Your task to perform on an android device: toggle notification dots Image 0: 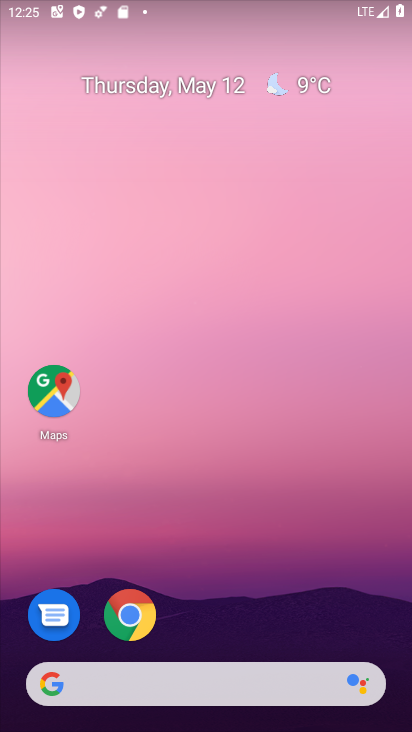
Step 0: drag from (248, 573) to (219, 58)
Your task to perform on an android device: toggle notification dots Image 1: 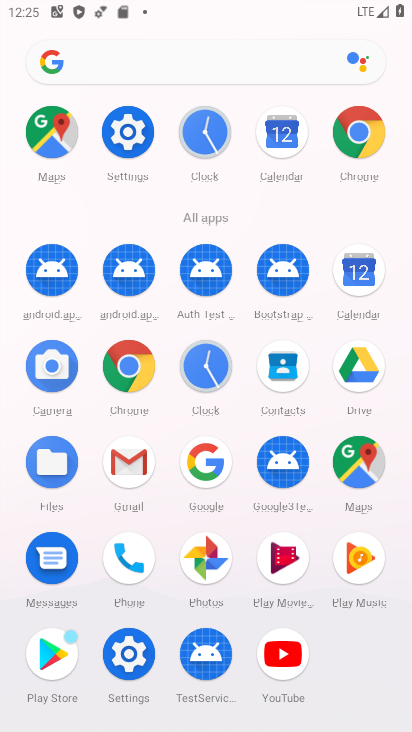
Step 1: click (125, 134)
Your task to perform on an android device: toggle notification dots Image 2: 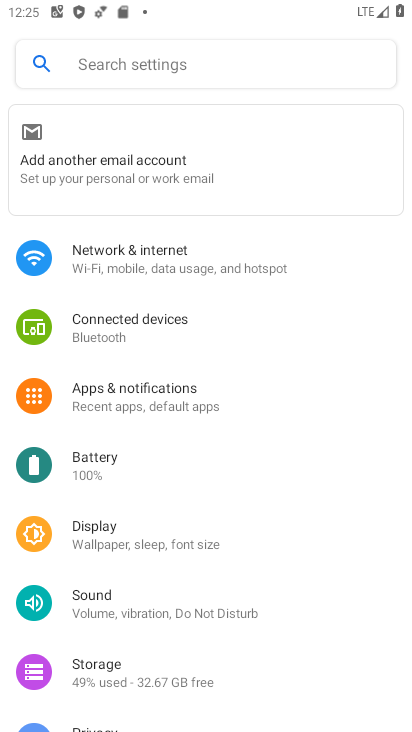
Step 2: click (146, 400)
Your task to perform on an android device: toggle notification dots Image 3: 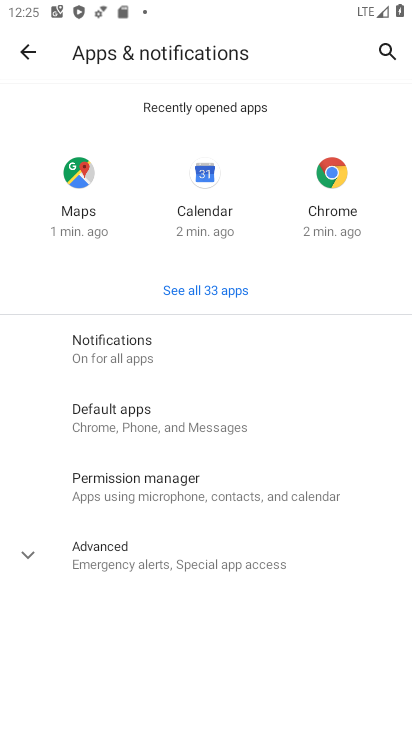
Step 3: click (96, 346)
Your task to perform on an android device: toggle notification dots Image 4: 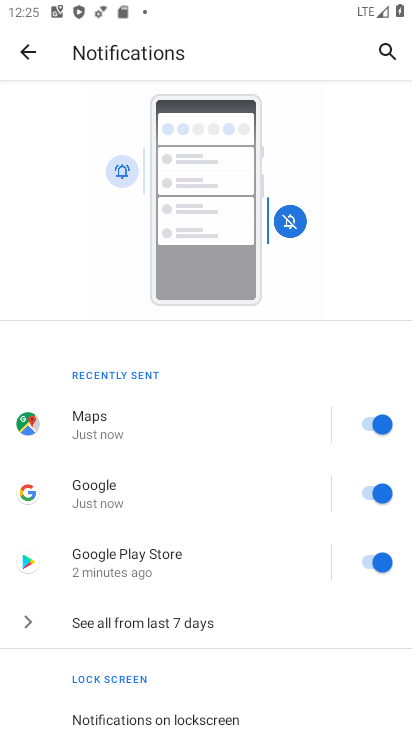
Step 4: drag from (210, 630) to (258, 445)
Your task to perform on an android device: toggle notification dots Image 5: 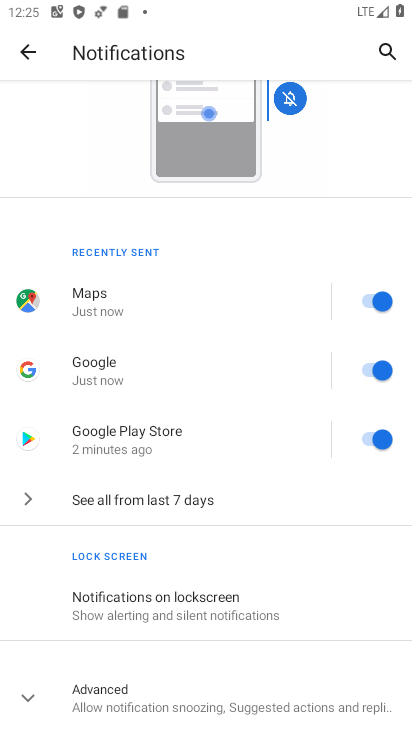
Step 5: click (200, 704)
Your task to perform on an android device: toggle notification dots Image 6: 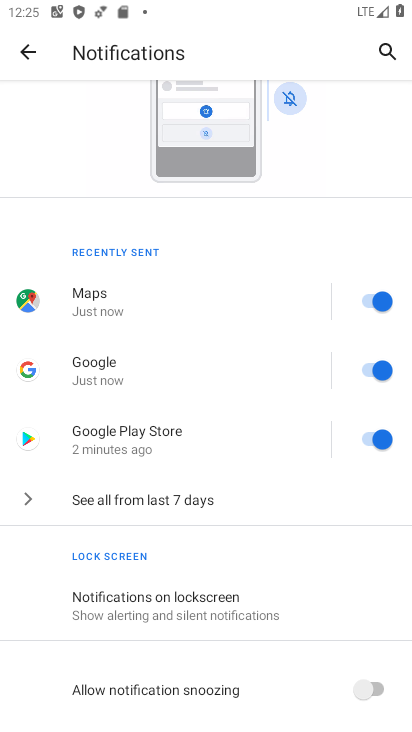
Step 6: drag from (186, 650) to (311, 392)
Your task to perform on an android device: toggle notification dots Image 7: 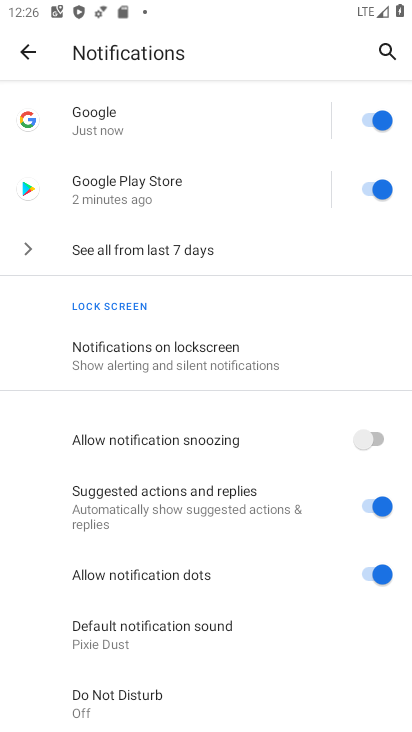
Step 7: click (390, 570)
Your task to perform on an android device: toggle notification dots Image 8: 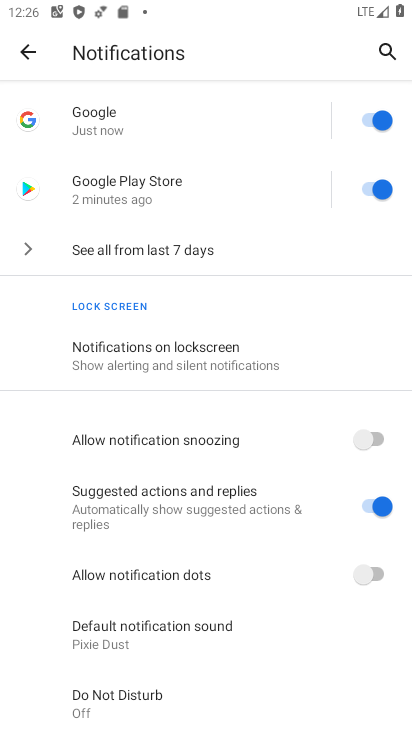
Step 8: task complete